Your task to perform on an android device: Open Google Chrome and open the bookmarks view Image 0: 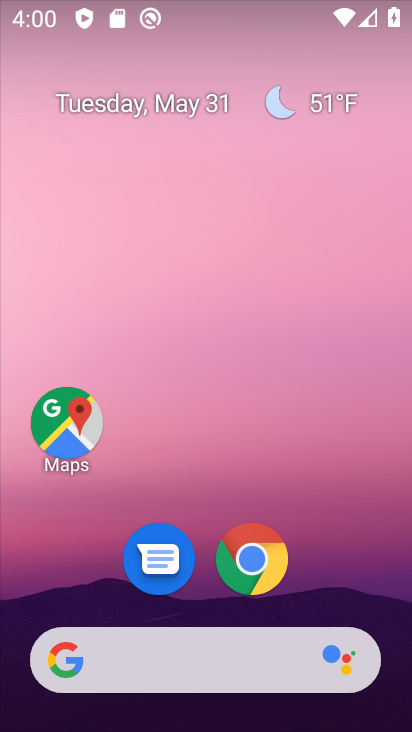
Step 0: click (251, 555)
Your task to perform on an android device: Open Google Chrome and open the bookmarks view Image 1: 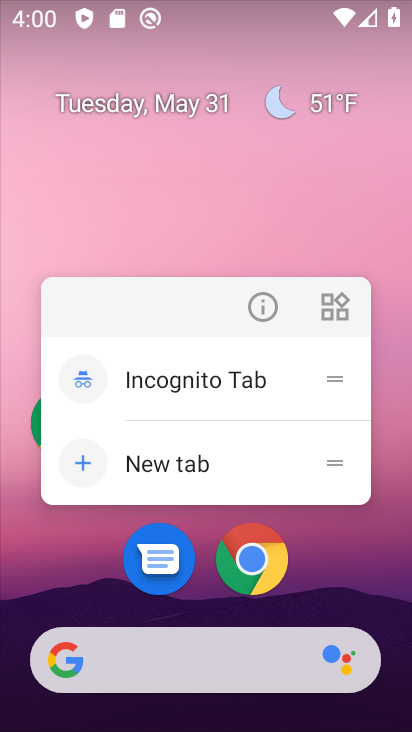
Step 1: click (252, 555)
Your task to perform on an android device: Open Google Chrome and open the bookmarks view Image 2: 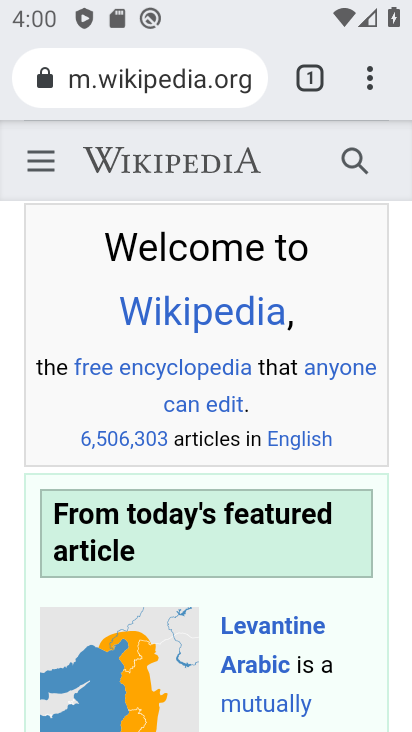
Step 2: click (370, 82)
Your task to perform on an android device: Open Google Chrome and open the bookmarks view Image 3: 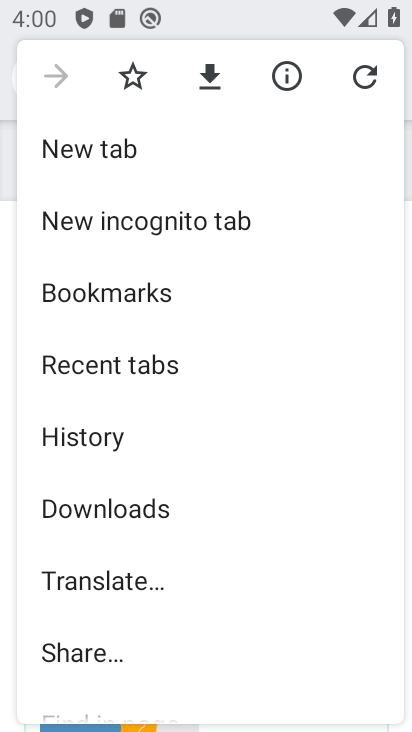
Step 3: click (146, 297)
Your task to perform on an android device: Open Google Chrome and open the bookmarks view Image 4: 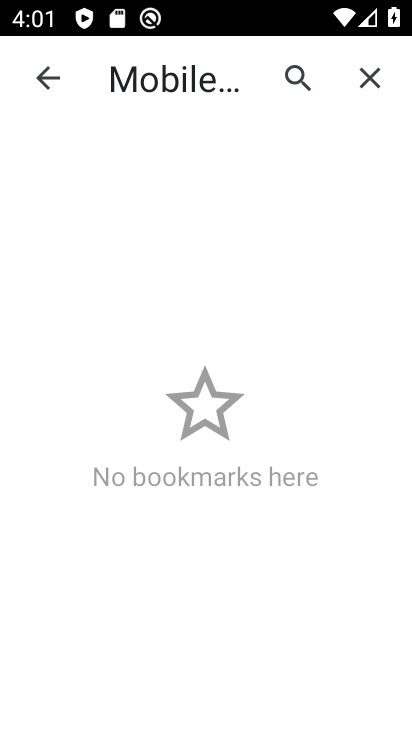
Step 4: task complete